Your task to perform on an android device: move a message to another label in the gmail app Image 0: 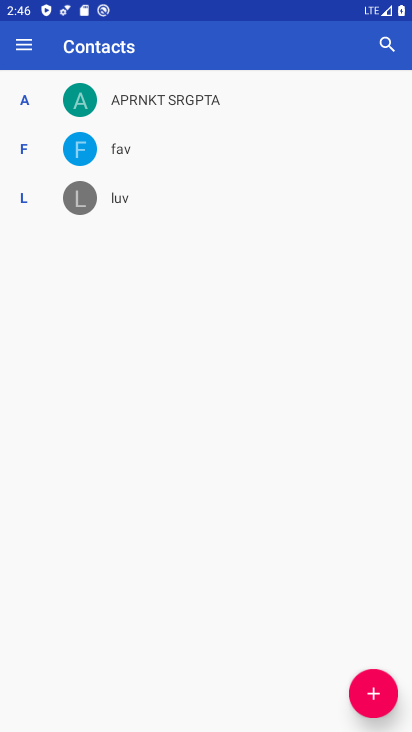
Step 0: press home button
Your task to perform on an android device: move a message to another label in the gmail app Image 1: 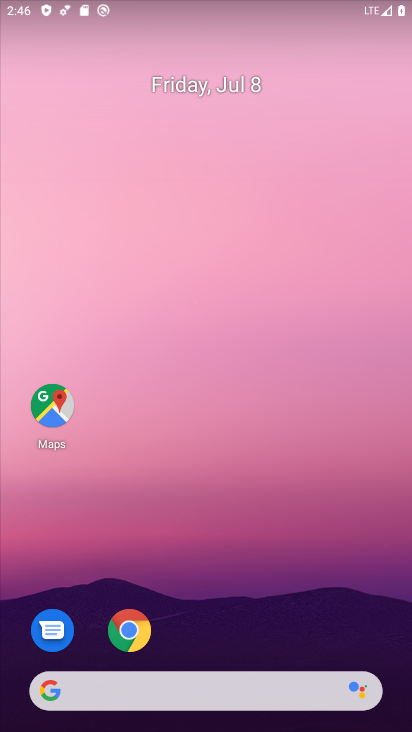
Step 1: drag from (269, 579) to (212, 310)
Your task to perform on an android device: move a message to another label in the gmail app Image 2: 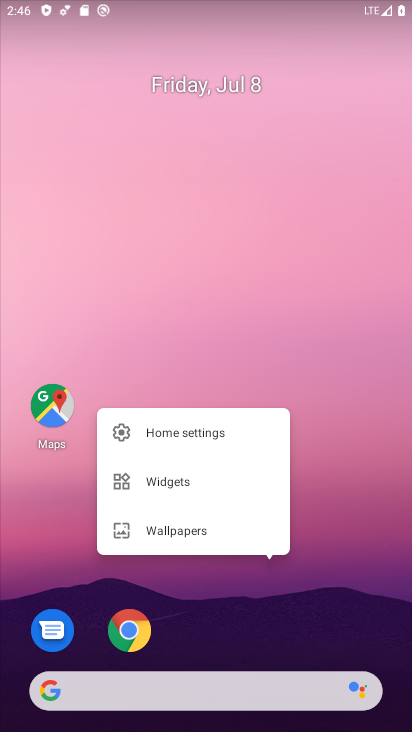
Step 2: click (329, 496)
Your task to perform on an android device: move a message to another label in the gmail app Image 3: 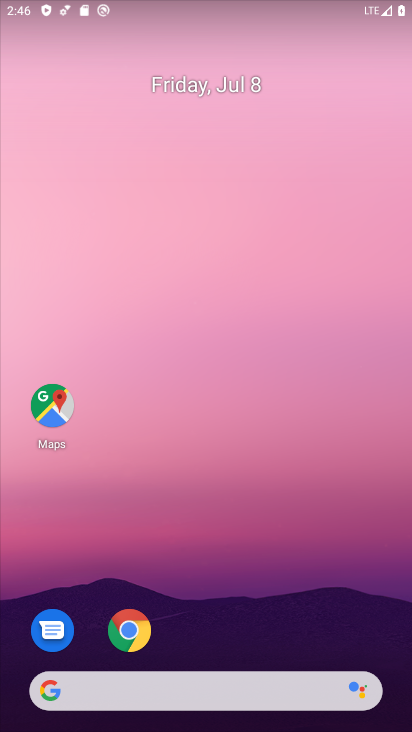
Step 3: drag from (329, 496) to (276, 187)
Your task to perform on an android device: move a message to another label in the gmail app Image 4: 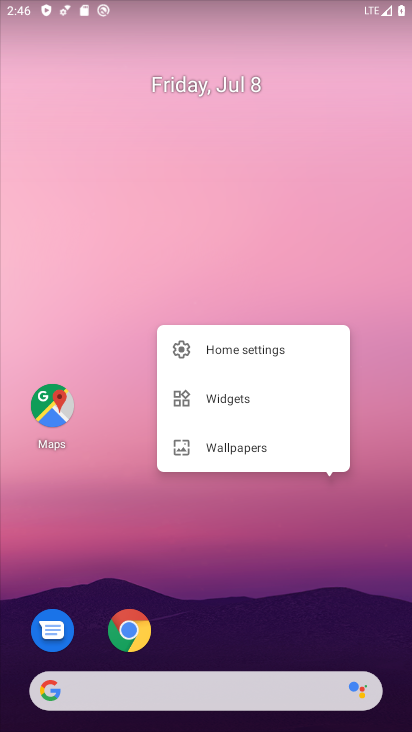
Step 4: drag from (268, 553) to (154, 211)
Your task to perform on an android device: move a message to another label in the gmail app Image 5: 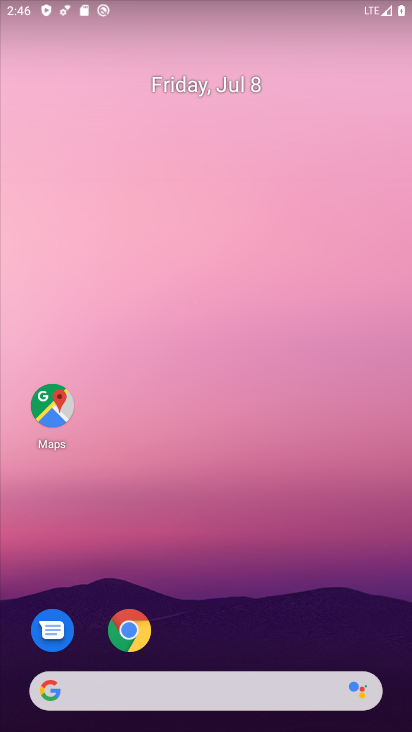
Step 5: drag from (233, 461) to (206, 61)
Your task to perform on an android device: move a message to another label in the gmail app Image 6: 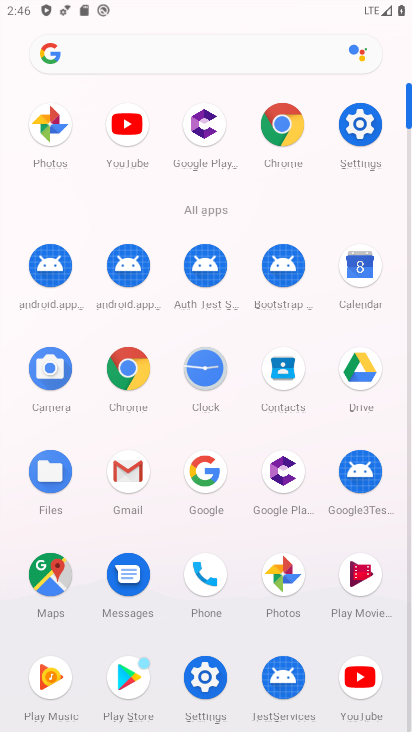
Step 6: click (124, 474)
Your task to perform on an android device: move a message to another label in the gmail app Image 7: 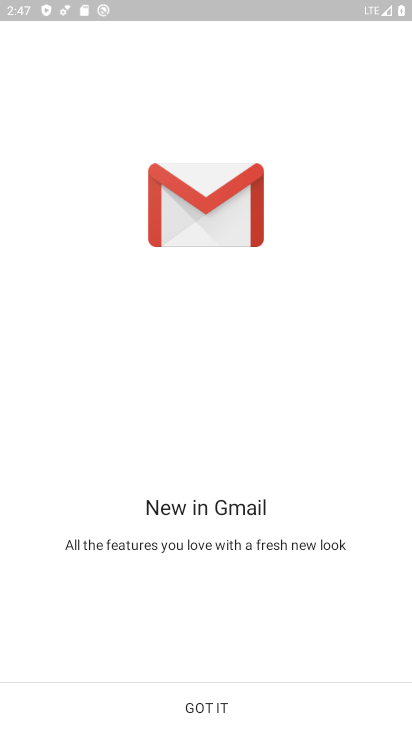
Step 7: click (211, 700)
Your task to perform on an android device: move a message to another label in the gmail app Image 8: 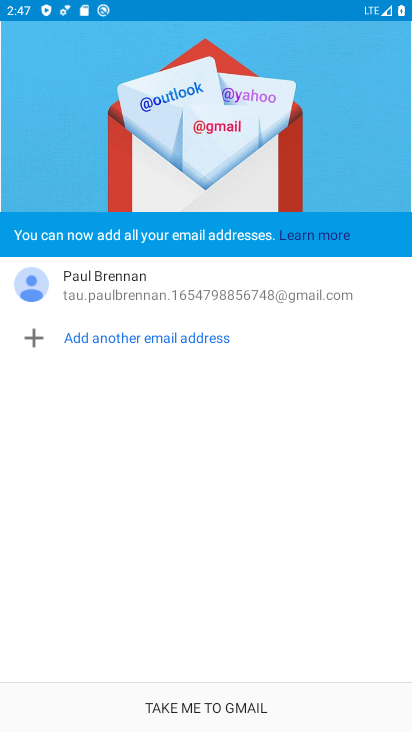
Step 8: click (211, 700)
Your task to perform on an android device: move a message to another label in the gmail app Image 9: 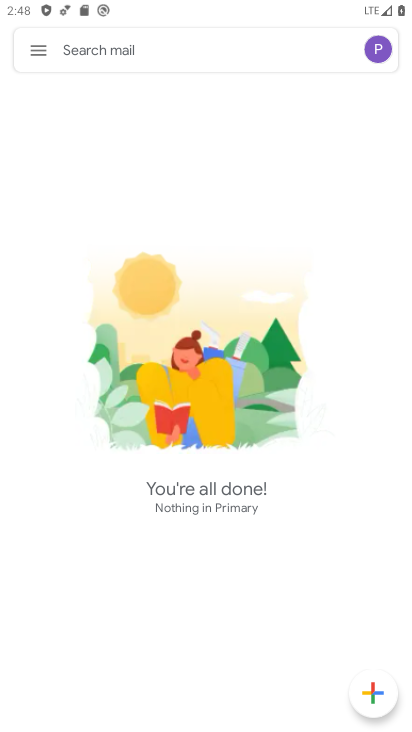
Step 9: click (37, 41)
Your task to perform on an android device: move a message to another label in the gmail app Image 10: 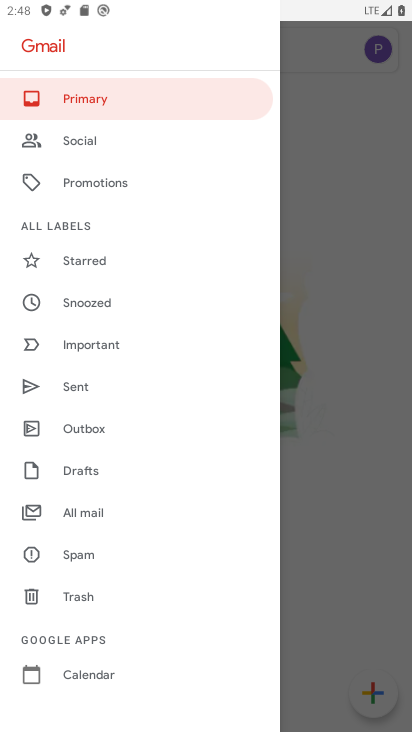
Step 10: task complete